Your task to perform on an android device: Add "amazon basics triple a" to the cart on walmart, then select checkout. Image 0: 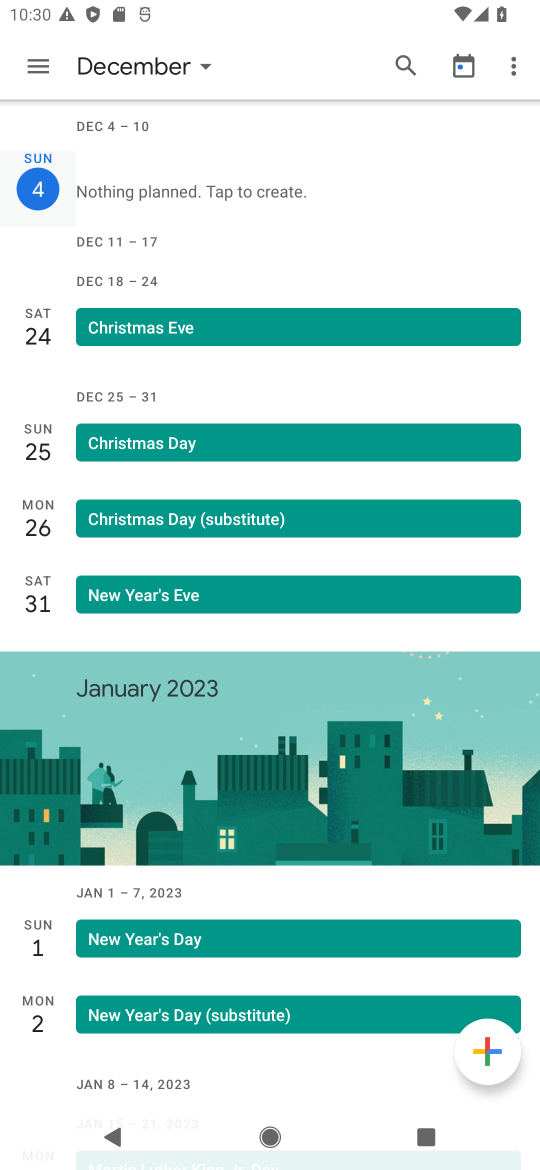
Step 0: press home button
Your task to perform on an android device: Add "amazon basics triple a" to the cart on walmart, then select checkout. Image 1: 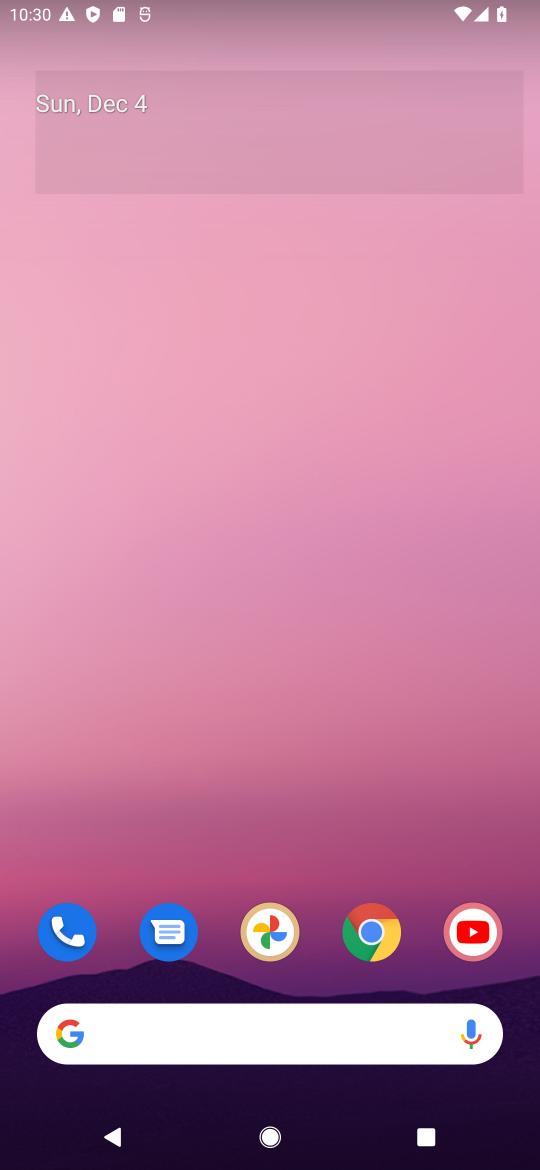
Step 1: click (377, 940)
Your task to perform on an android device: Add "amazon basics triple a" to the cart on walmart, then select checkout. Image 2: 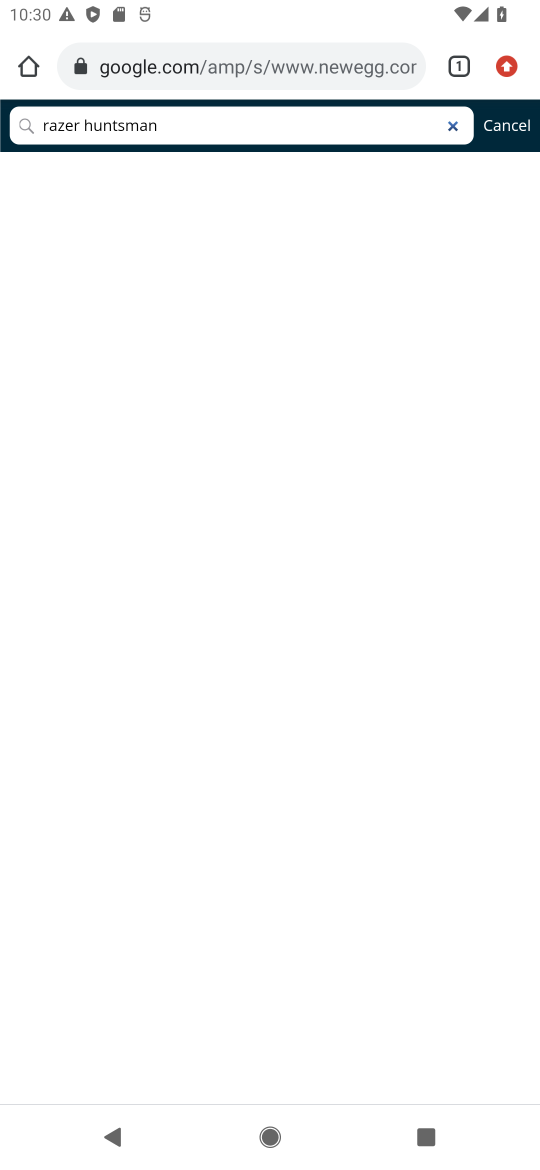
Step 2: click (233, 62)
Your task to perform on an android device: Add "amazon basics triple a" to the cart on walmart, then select checkout. Image 3: 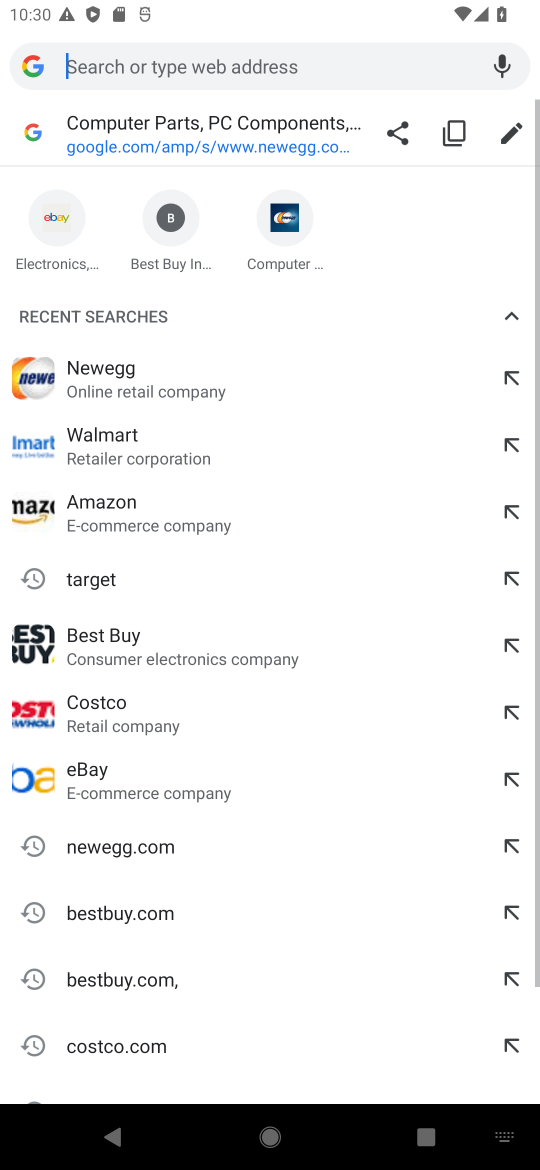
Step 3: click (224, 444)
Your task to perform on an android device: Add "amazon basics triple a" to the cart on walmart, then select checkout. Image 4: 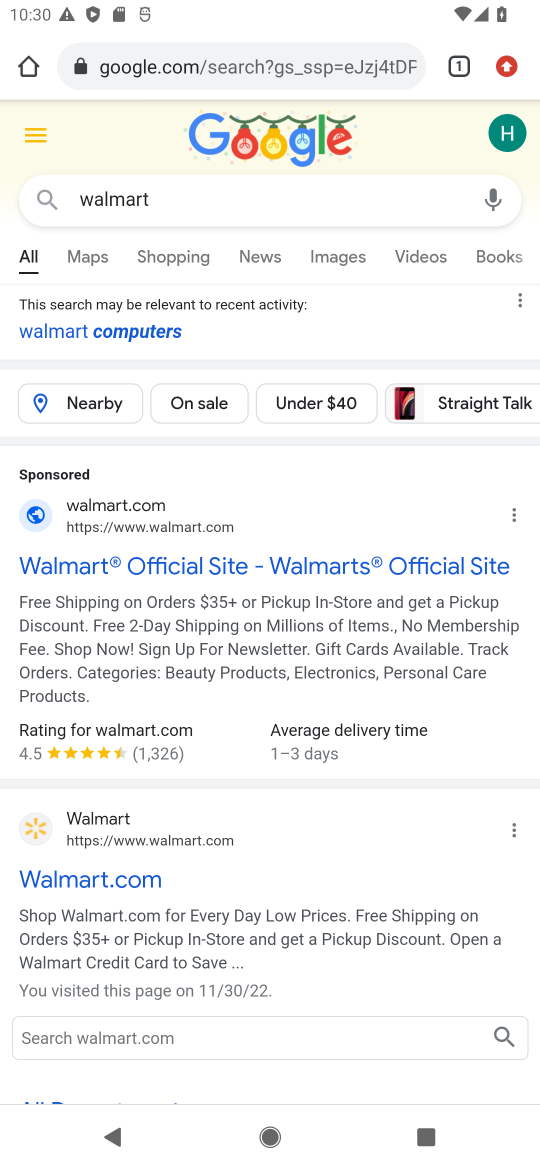
Step 4: click (118, 569)
Your task to perform on an android device: Add "amazon basics triple a" to the cart on walmart, then select checkout. Image 5: 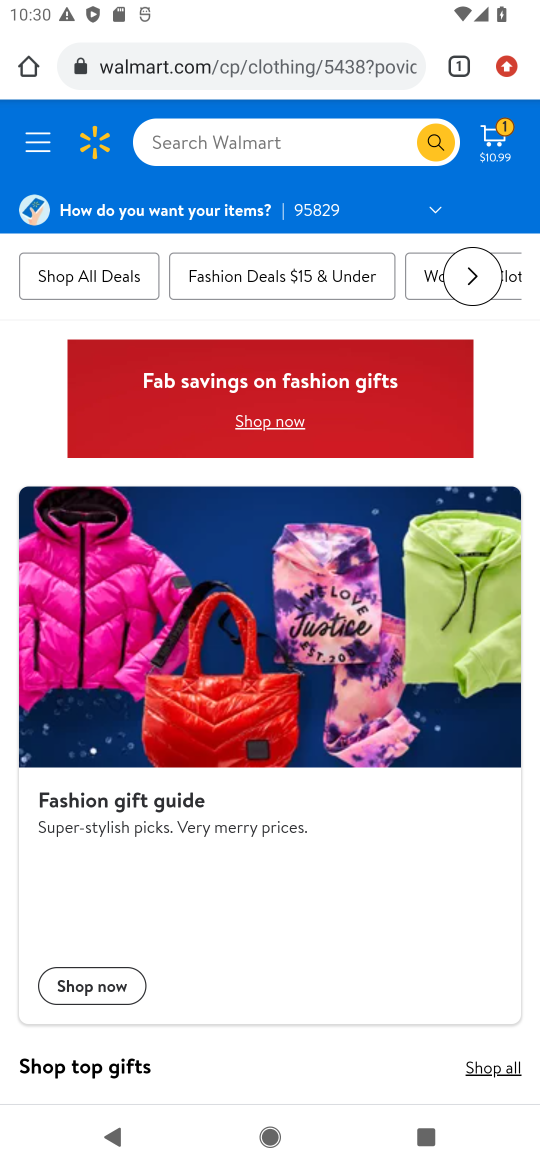
Step 5: click (353, 144)
Your task to perform on an android device: Add "amazon basics triple a" to the cart on walmart, then select checkout. Image 6: 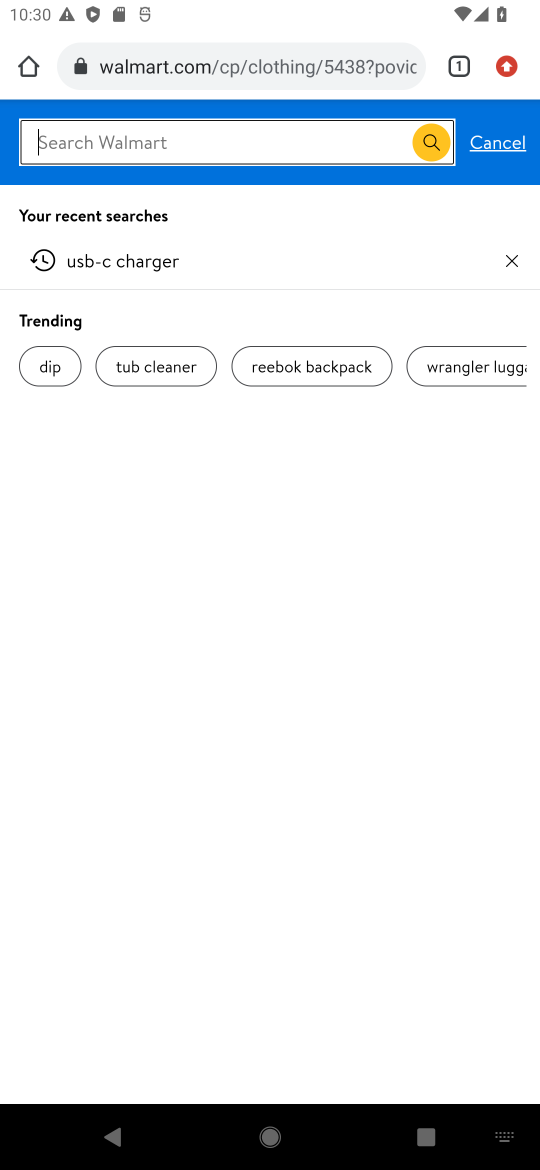
Step 6: type "amazon basics triple a"
Your task to perform on an android device: Add "amazon basics triple a" to the cart on walmart, then select checkout. Image 7: 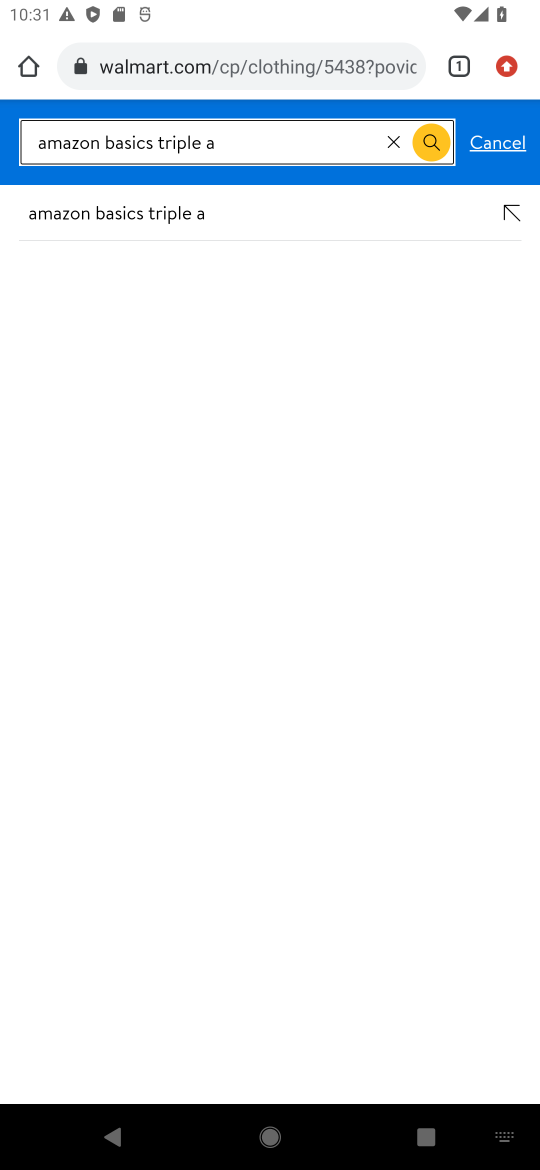
Step 7: click (106, 211)
Your task to perform on an android device: Add "amazon basics triple a" to the cart on walmart, then select checkout. Image 8: 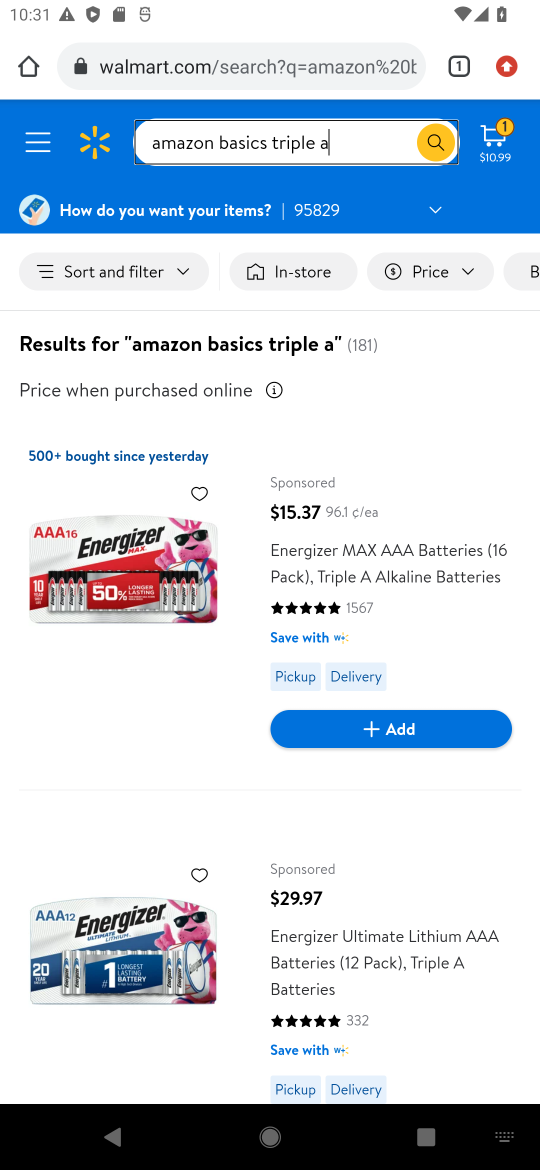
Step 8: click (395, 725)
Your task to perform on an android device: Add "amazon basics triple a" to the cart on walmart, then select checkout. Image 9: 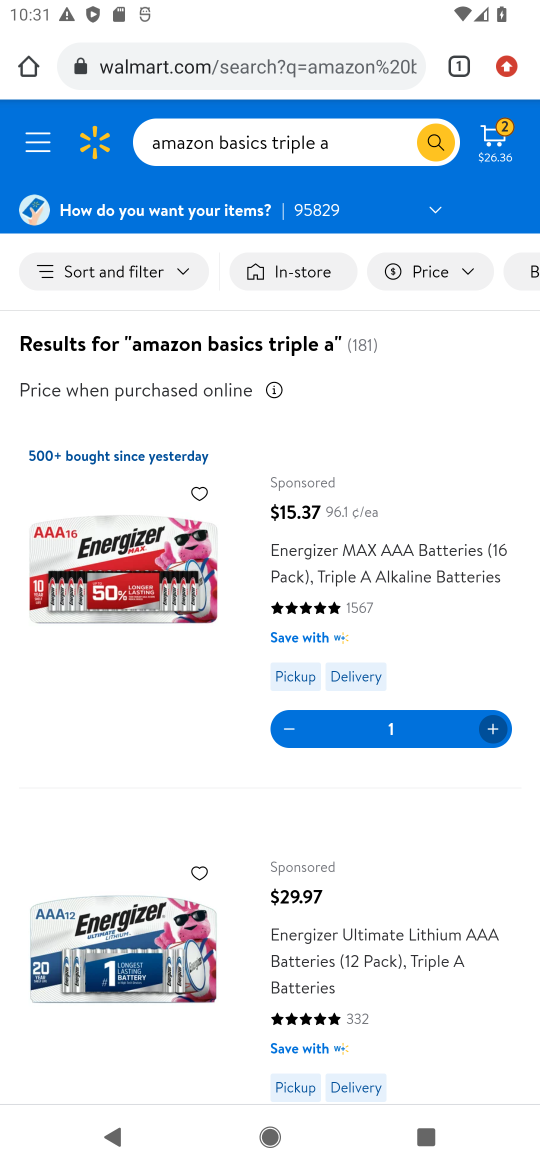
Step 9: click (492, 133)
Your task to perform on an android device: Add "amazon basics triple a" to the cart on walmart, then select checkout. Image 10: 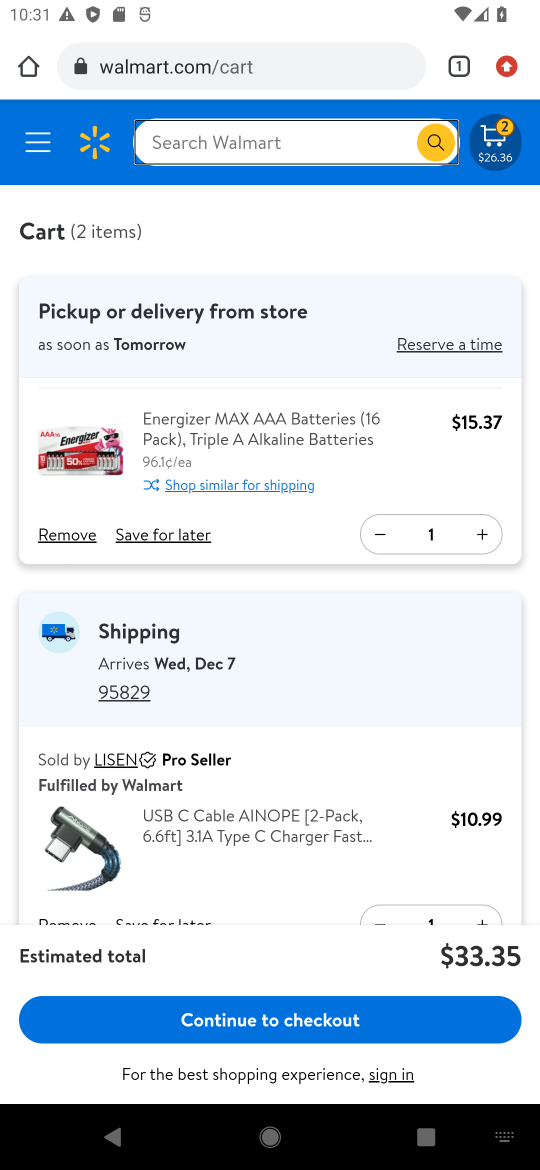
Step 10: click (287, 1022)
Your task to perform on an android device: Add "amazon basics triple a" to the cart on walmart, then select checkout. Image 11: 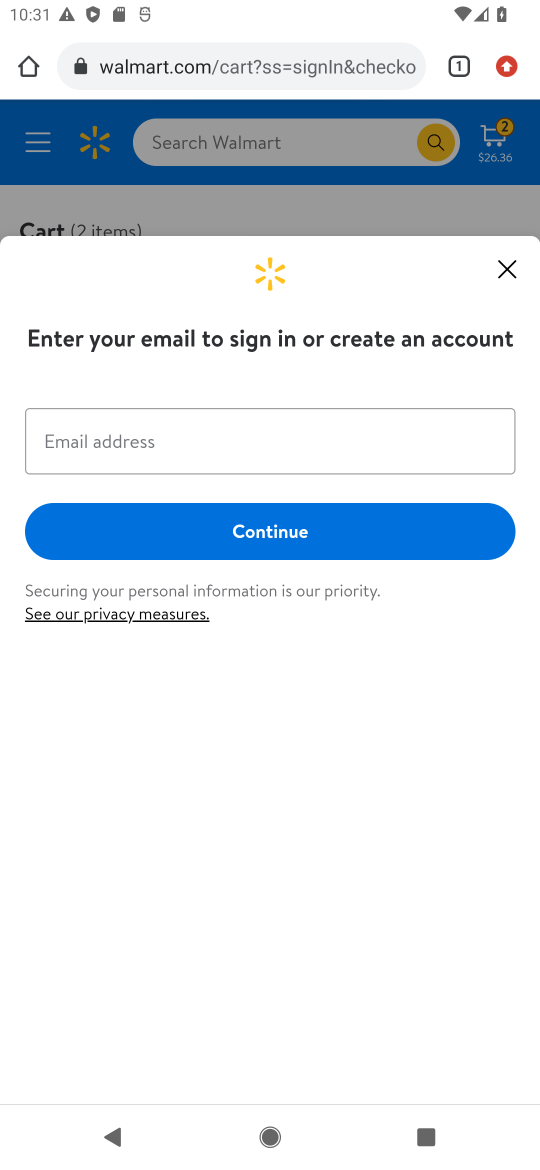
Step 11: task complete